Your task to perform on an android device: Open Google Image 0: 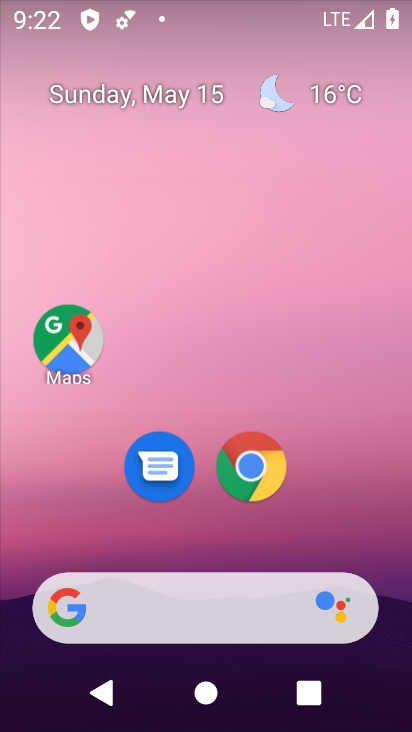
Step 0: drag from (223, 582) to (236, 464)
Your task to perform on an android device: Open Google Image 1: 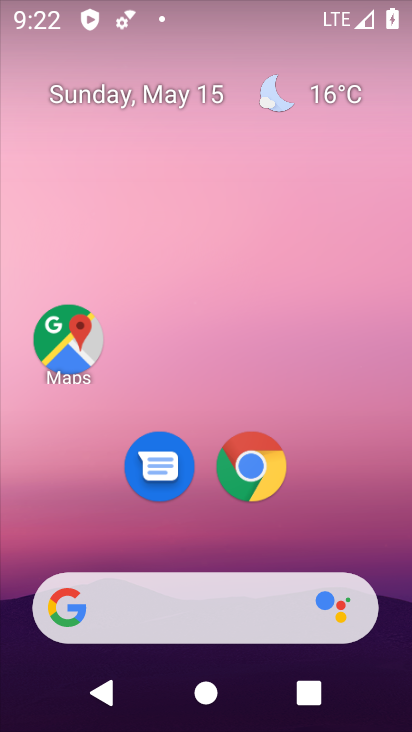
Step 1: drag from (150, 570) to (242, 228)
Your task to perform on an android device: Open Google Image 2: 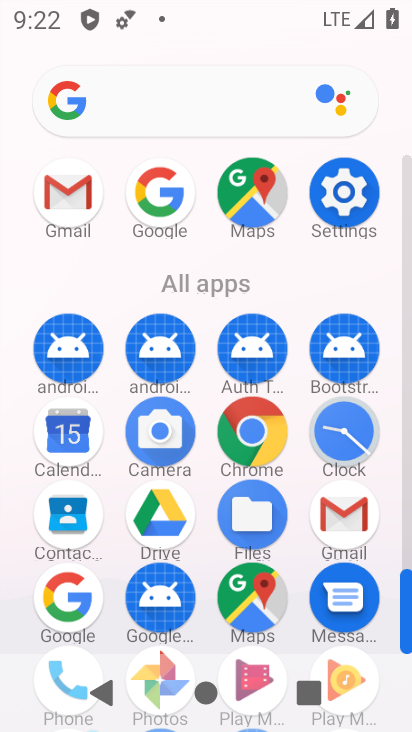
Step 2: click (69, 604)
Your task to perform on an android device: Open Google Image 3: 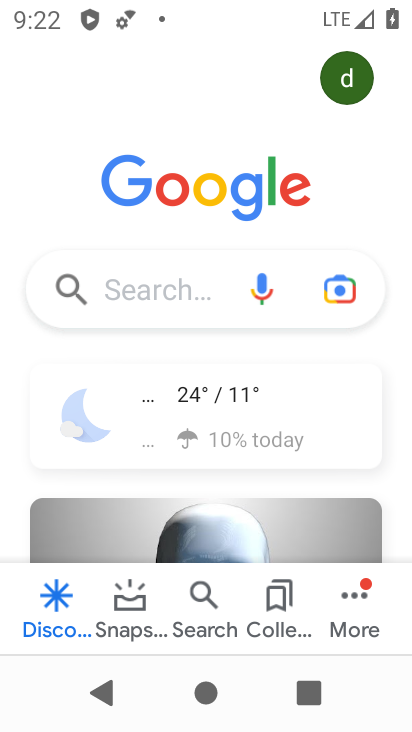
Step 3: task complete